Your task to perform on an android device: open a new tab in the chrome app Image 0: 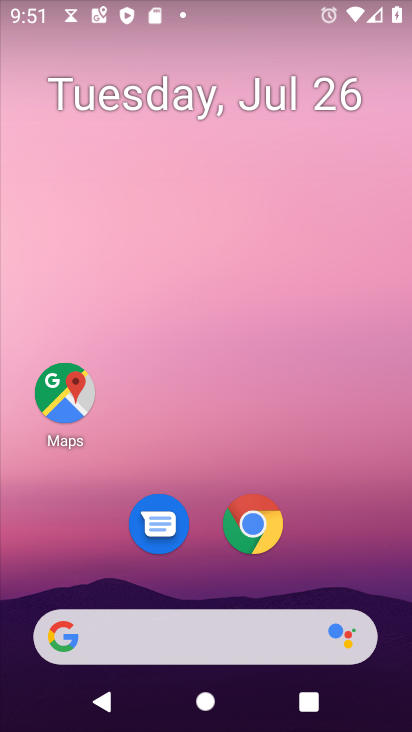
Step 0: click (261, 519)
Your task to perform on an android device: open a new tab in the chrome app Image 1: 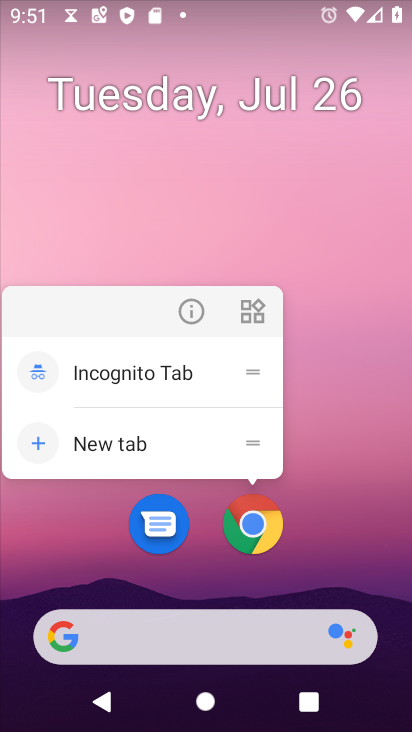
Step 1: click (253, 527)
Your task to perform on an android device: open a new tab in the chrome app Image 2: 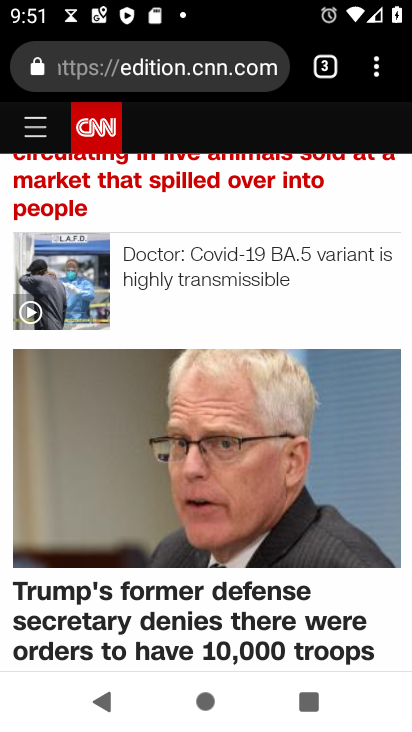
Step 2: task complete